Your task to perform on an android device: Open Chrome and go to the settings page Image 0: 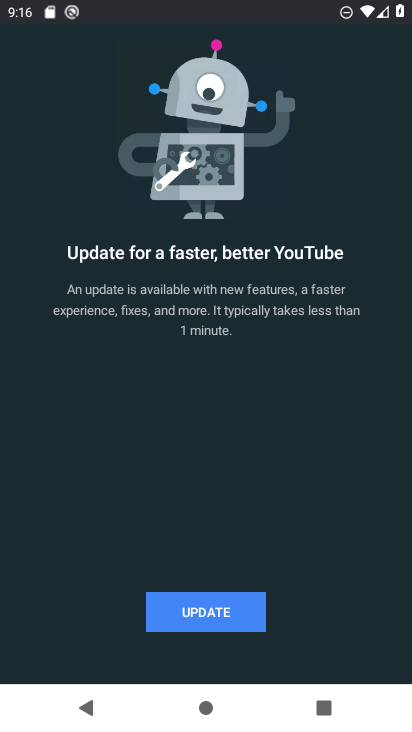
Step 0: press back button
Your task to perform on an android device: Open Chrome and go to the settings page Image 1: 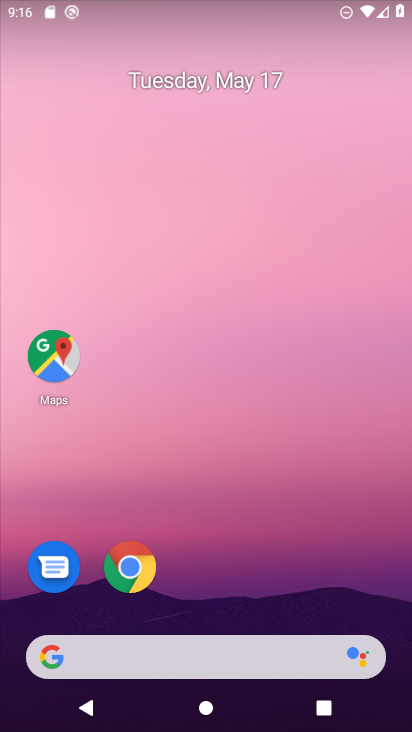
Step 1: click (135, 579)
Your task to perform on an android device: Open Chrome and go to the settings page Image 2: 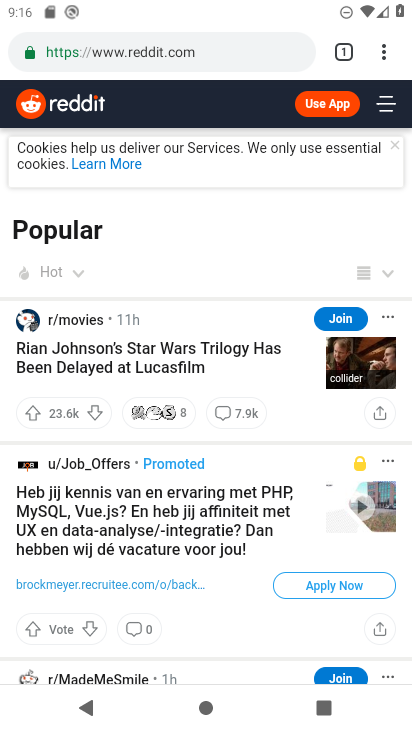
Step 2: task complete